Your task to perform on an android device: search for starred emails in the gmail app Image 0: 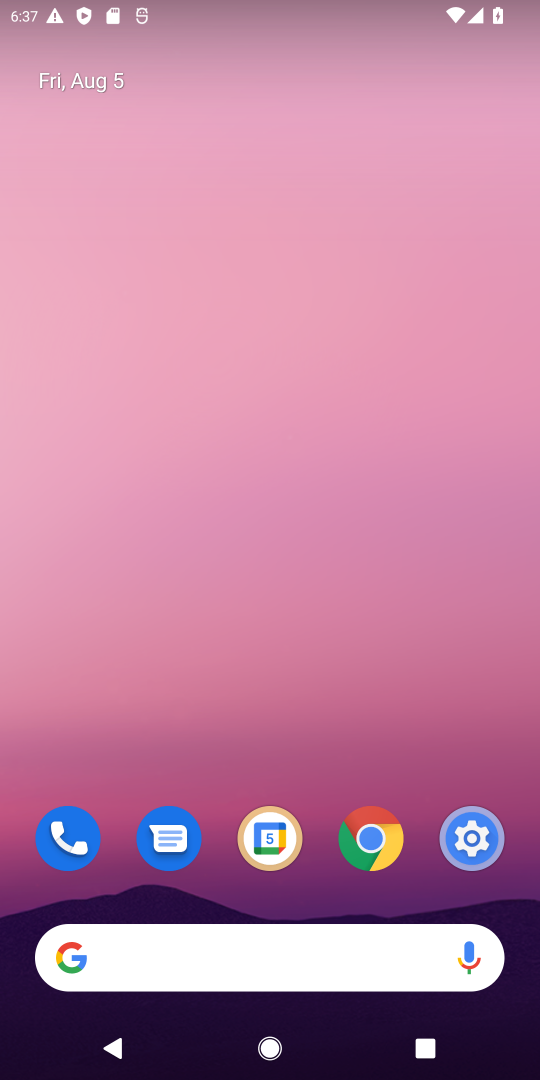
Step 0: press home button
Your task to perform on an android device: search for starred emails in the gmail app Image 1: 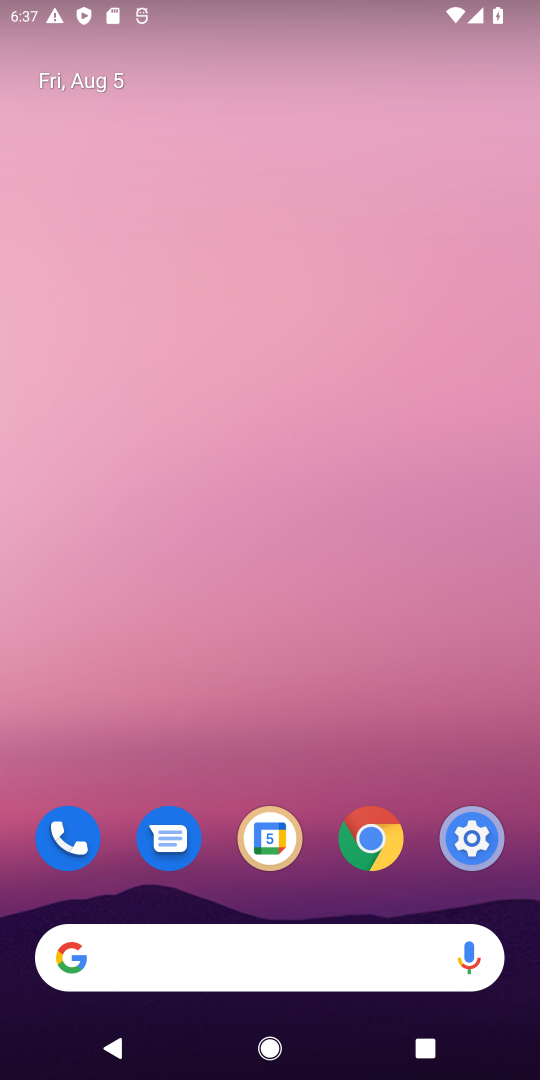
Step 1: drag from (259, 629) to (256, 130)
Your task to perform on an android device: search for starred emails in the gmail app Image 2: 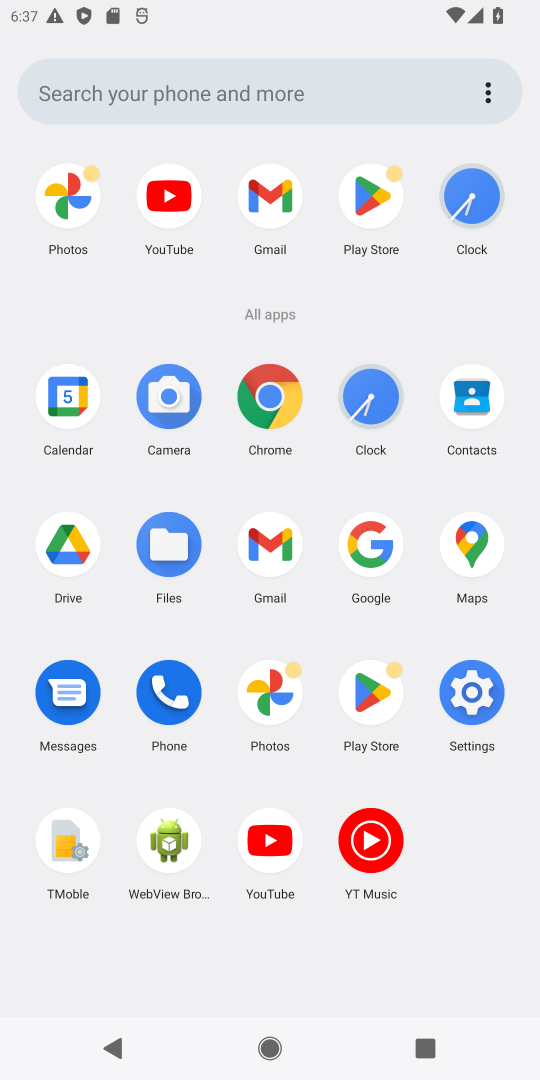
Step 2: click (282, 208)
Your task to perform on an android device: search for starred emails in the gmail app Image 3: 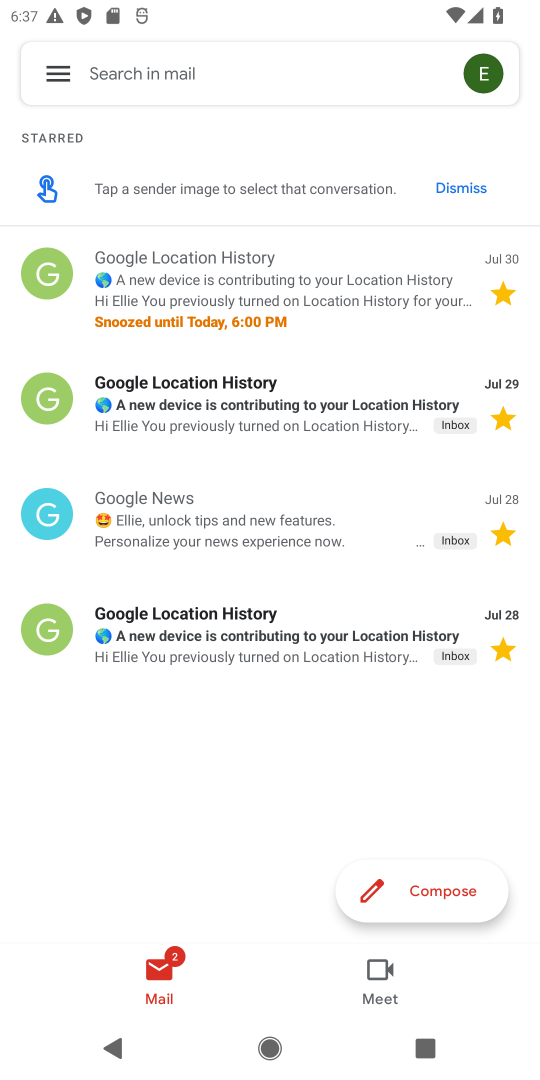
Step 3: click (51, 73)
Your task to perform on an android device: search for starred emails in the gmail app Image 4: 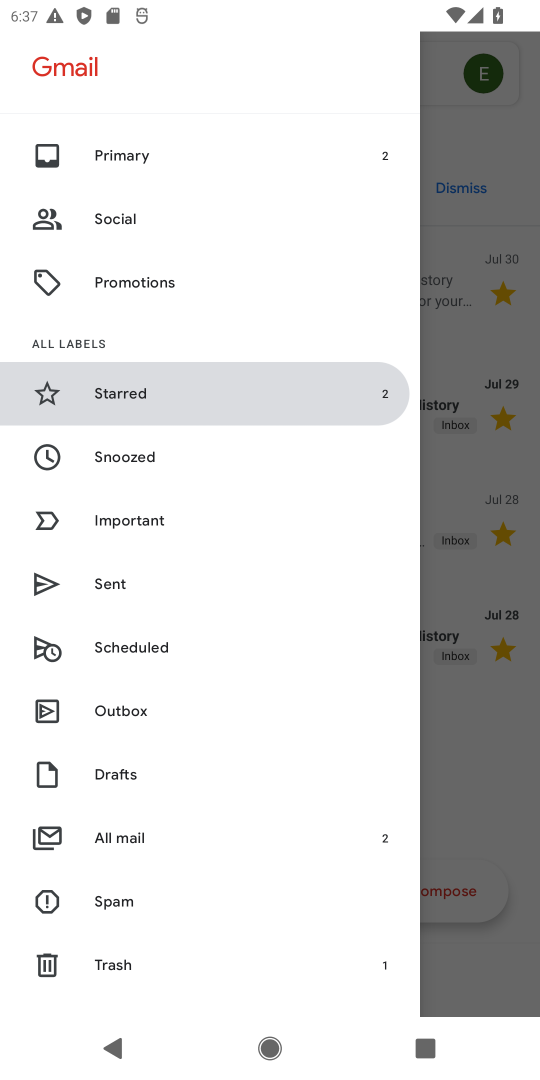
Step 4: click (134, 397)
Your task to perform on an android device: search for starred emails in the gmail app Image 5: 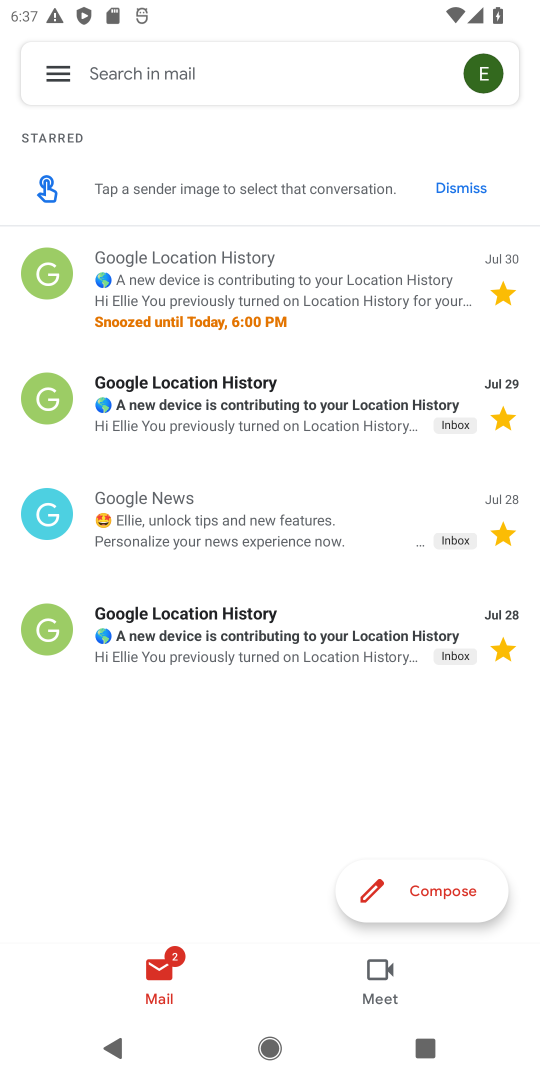
Step 5: task complete